Your task to perform on an android device: Search for dell xps on costco.com, select the first entry, and add it to the cart. Image 0: 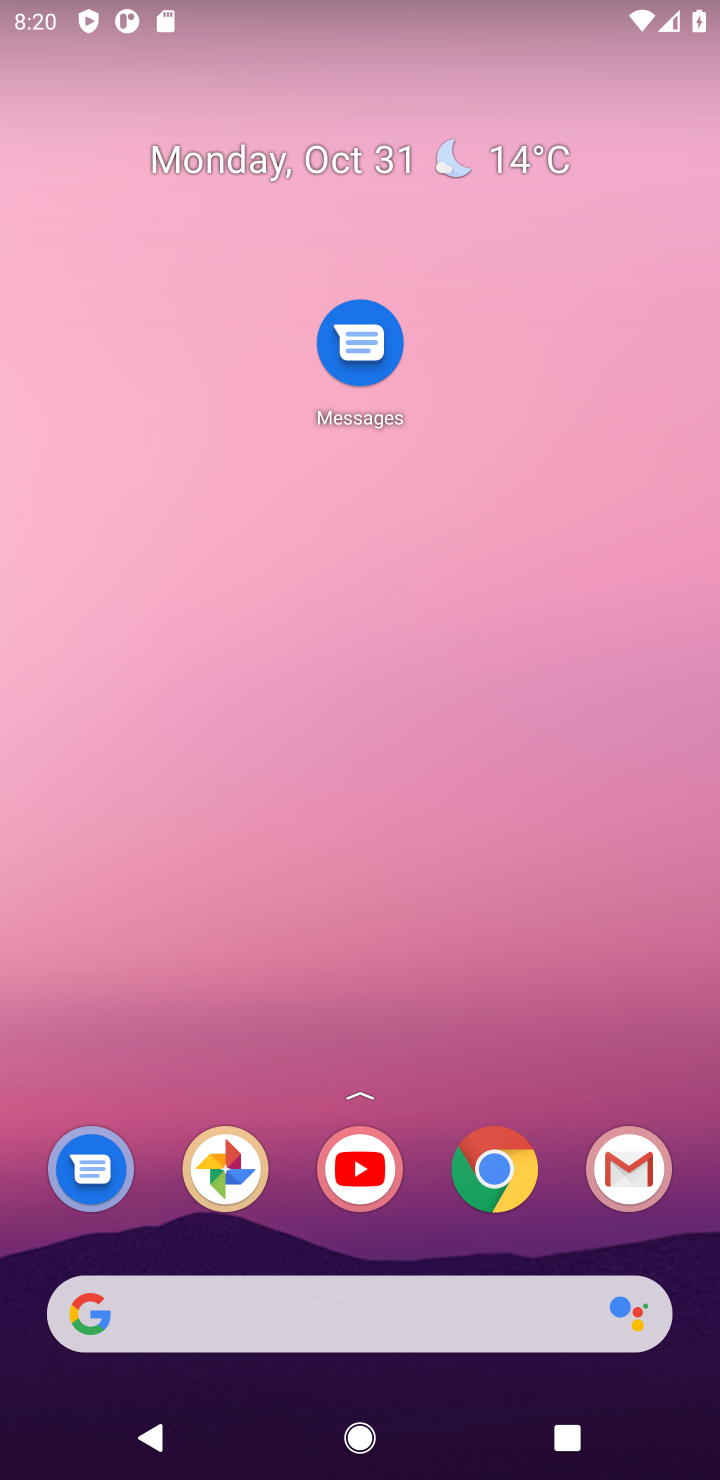
Step 0: drag from (253, 1219) to (249, 280)
Your task to perform on an android device: Search for dell xps on costco.com, select the first entry, and add it to the cart. Image 1: 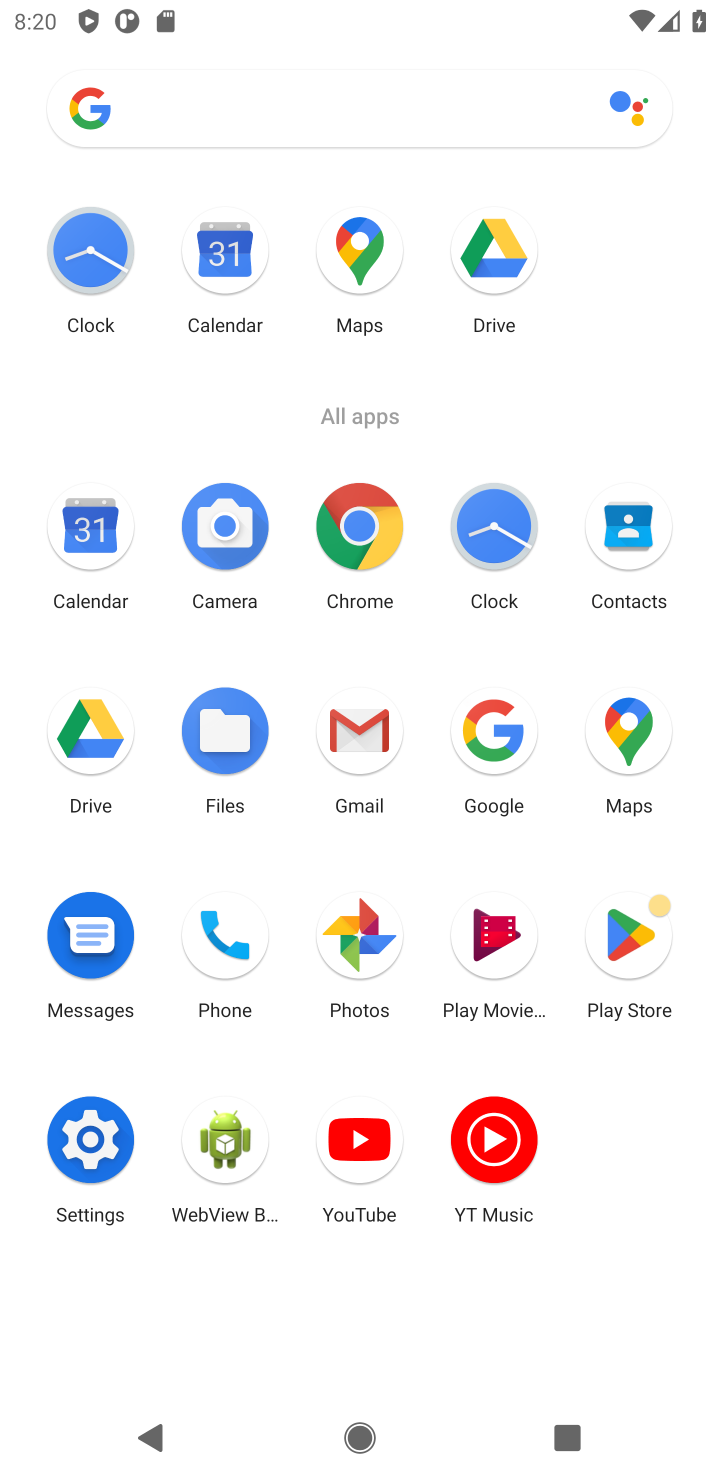
Step 1: click (492, 747)
Your task to perform on an android device: Search for dell xps on costco.com, select the first entry, and add it to the cart. Image 2: 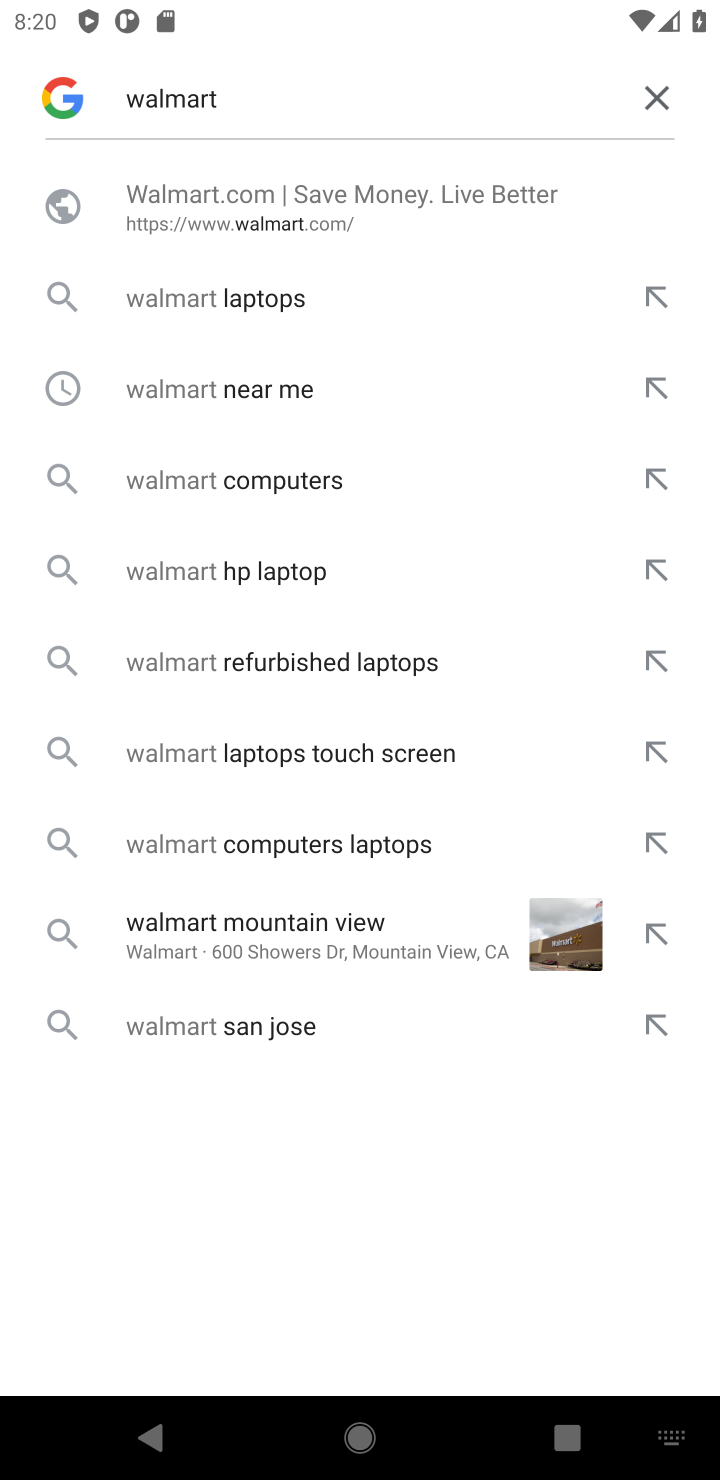
Step 2: click (647, 98)
Your task to perform on an android device: Search for dell xps on costco.com, select the first entry, and add it to the cart. Image 3: 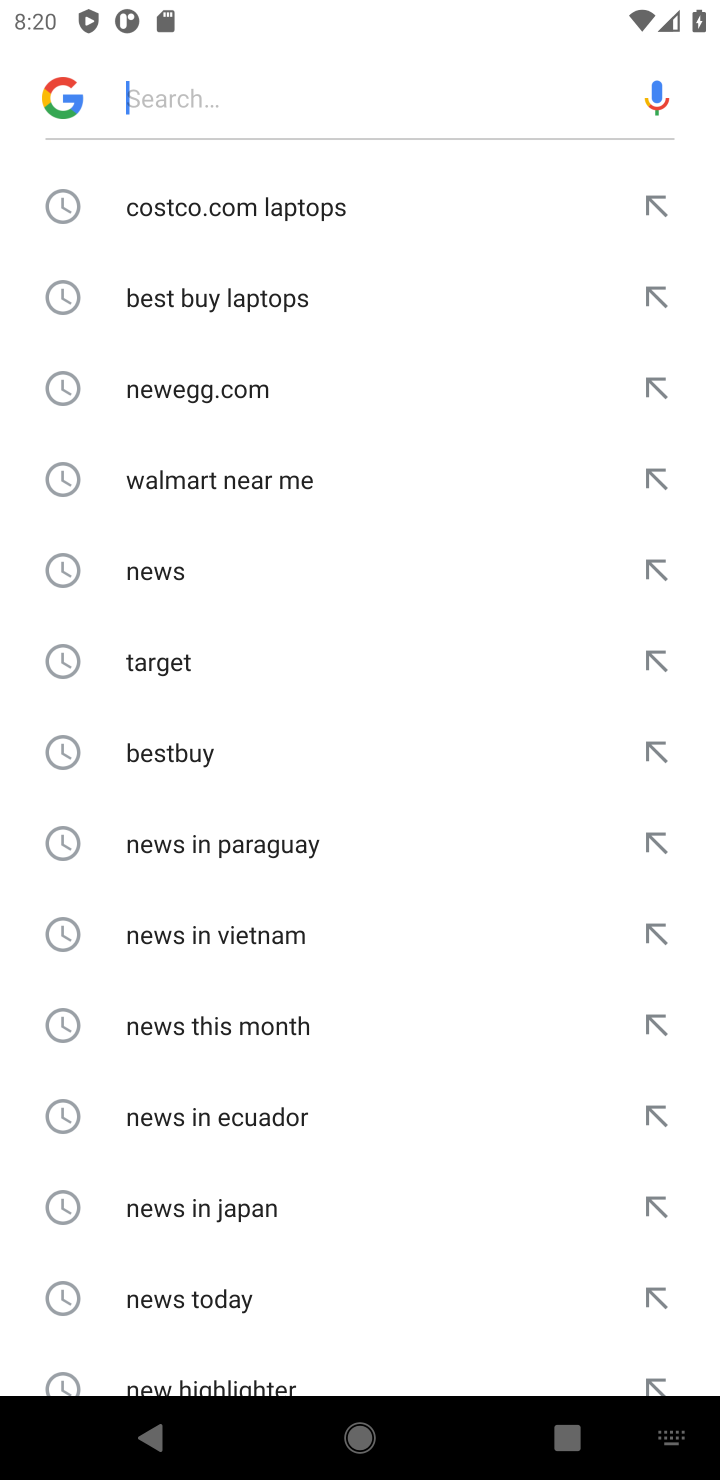
Step 3: click (319, 198)
Your task to perform on an android device: Search for dell xps on costco.com, select the first entry, and add it to the cart. Image 4: 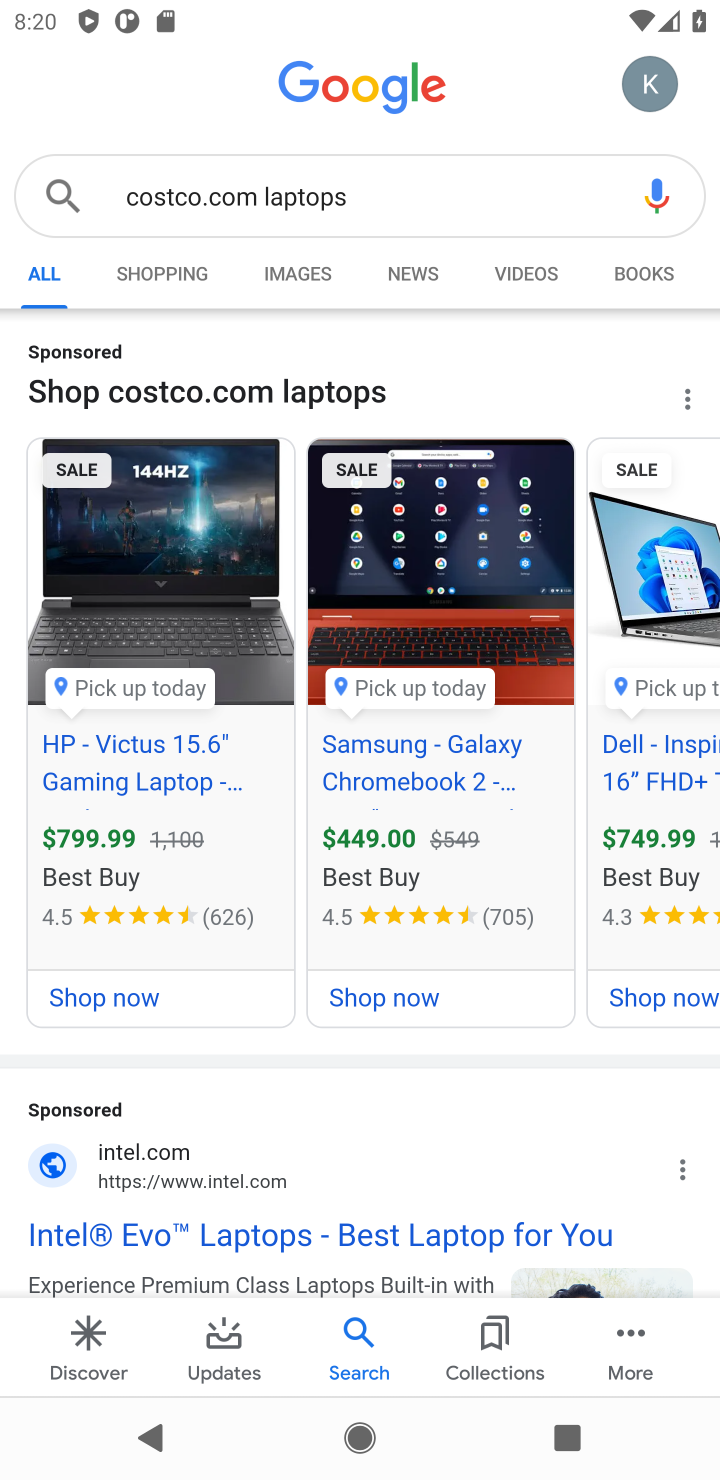
Step 4: drag from (133, 1150) to (285, 450)
Your task to perform on an android device: Search for dell xps on costco.com, select the first entry, and add it to the cart. Image 5: 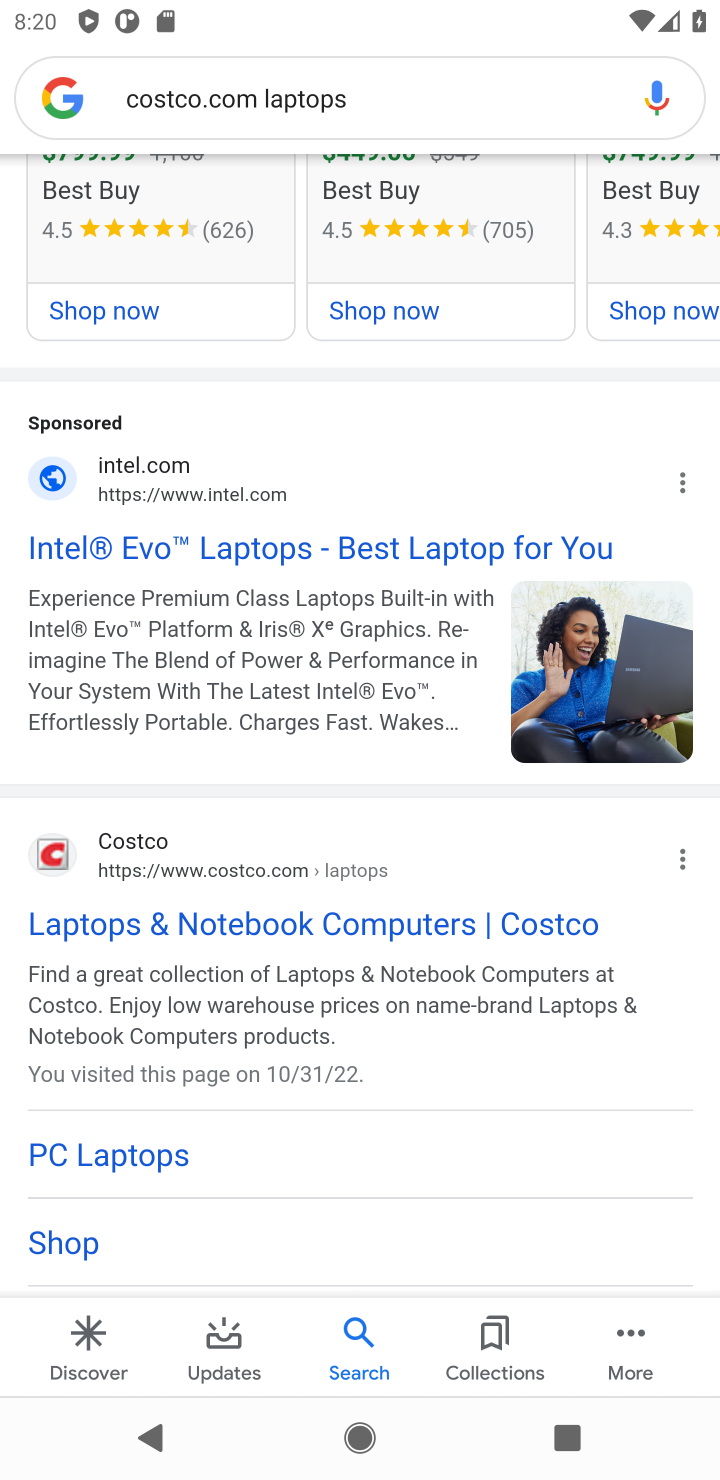
Step 5: click (47, 1021)
Your task to perform on an android device: Search for dell xps on costco.com, select the first entry, and add it to the cart. Image 6: 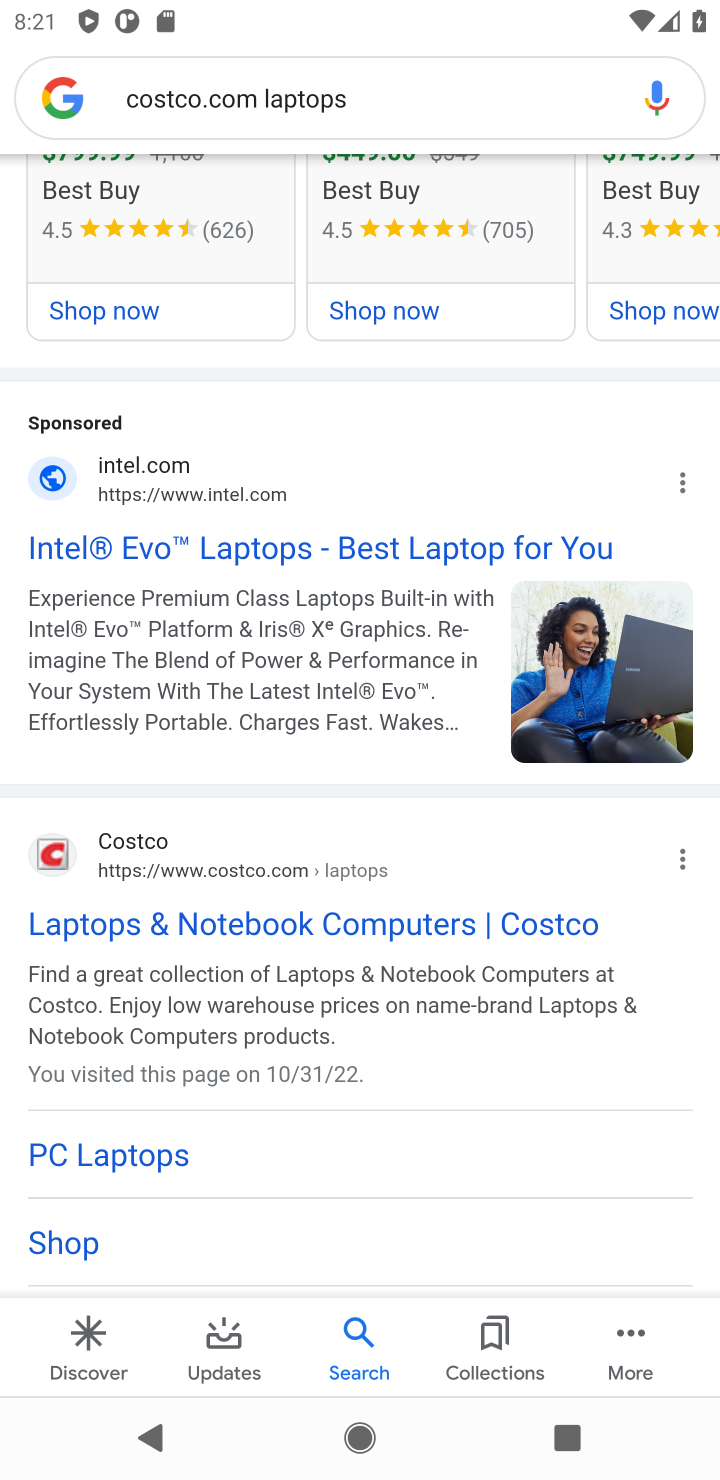
Step 6: click (54, 866)
Your task to perform on an android device: Search for dell xps on costco.com, select the first entry, and add it to the cart. Image 7: 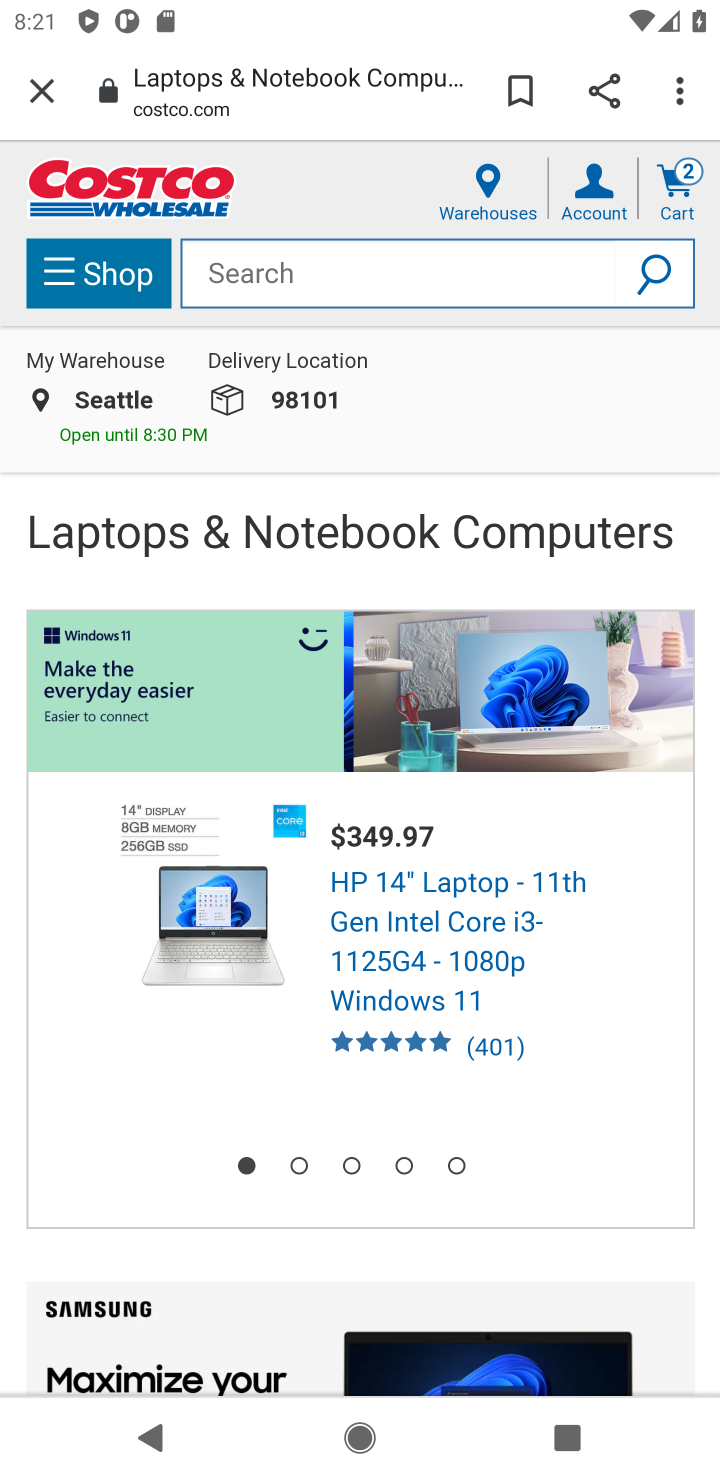
Step 7: click (353, 256)
Your task to perform on an android device: Search for dell xps on costco.com, select the first entry, and add it to the cart. Image 8: 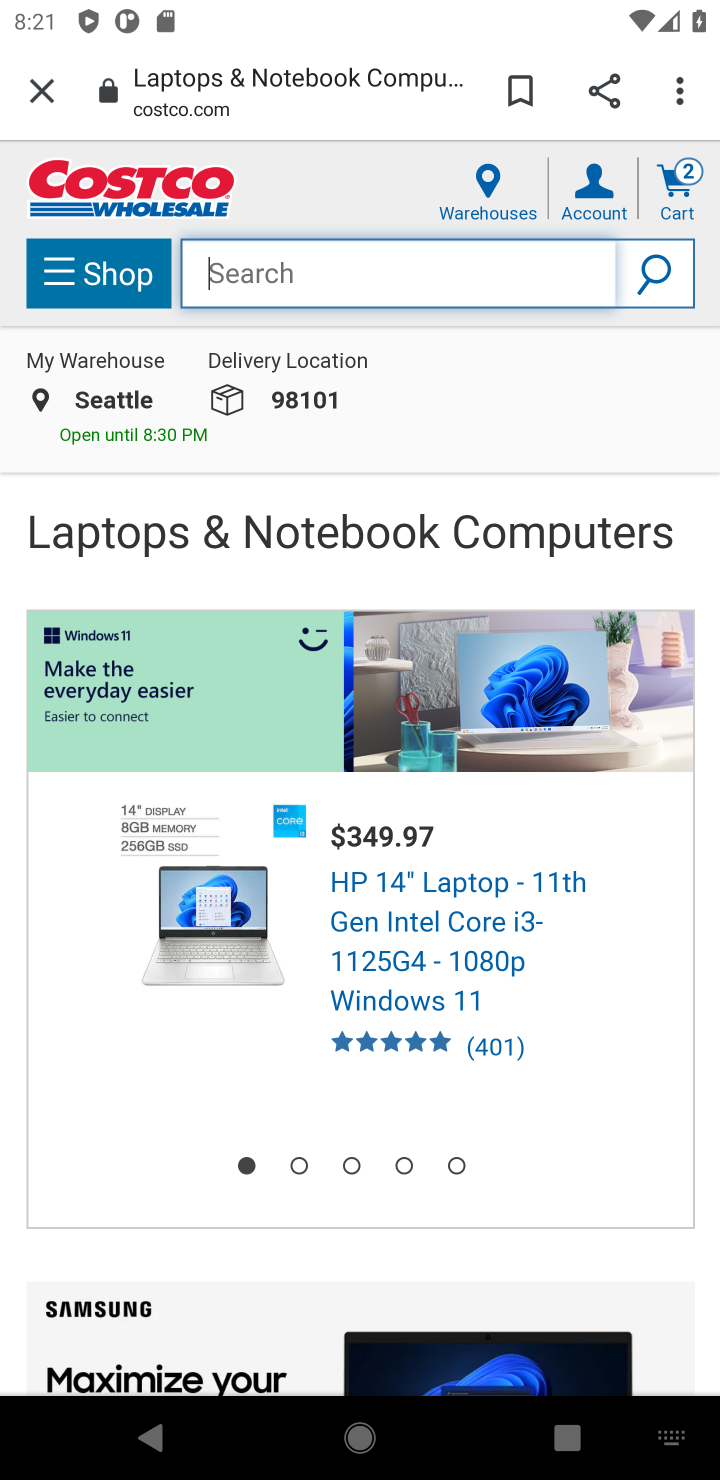
Step 8: type "dell xps "
Your task to perform on an android device: Search for dell xps on costco.com, select the first entry, and add it to the cart. Image 9: 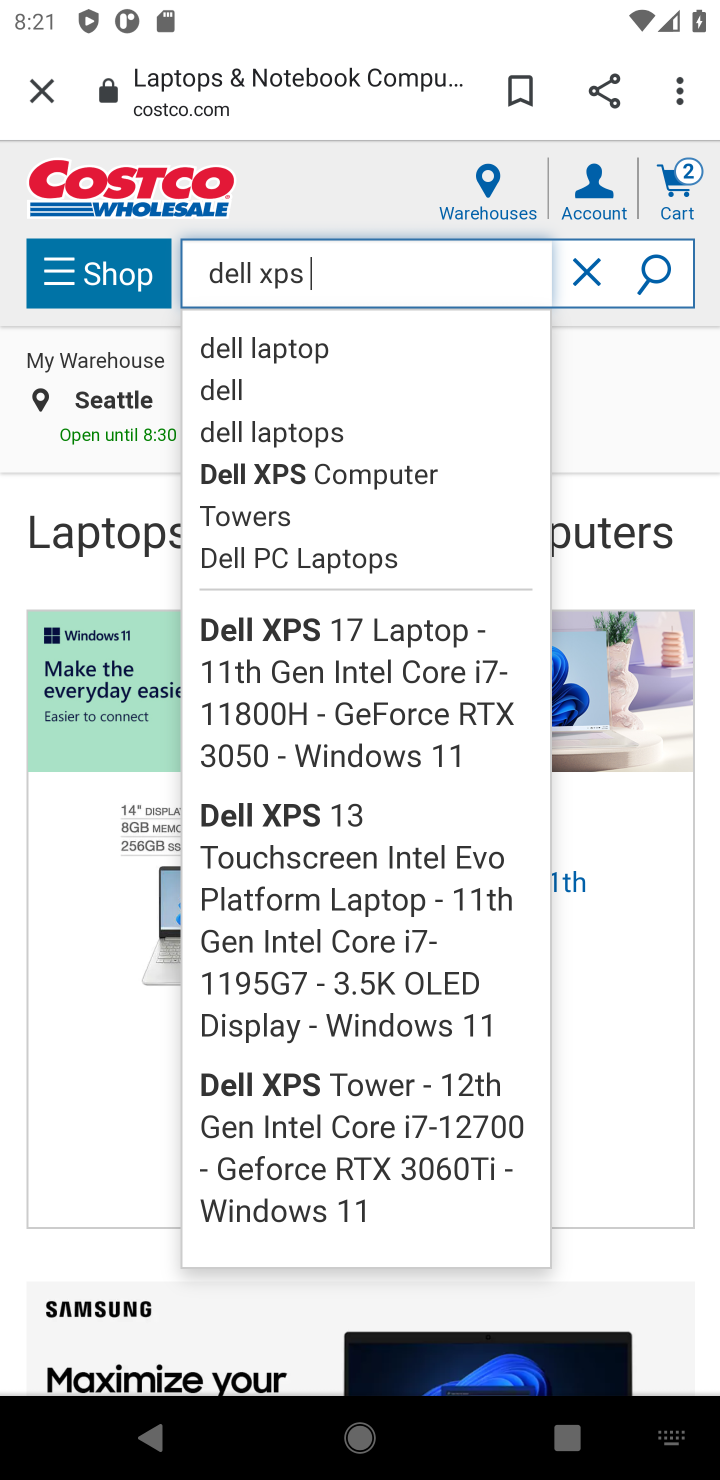
Step 9: click (307, 466)
Your task to perform on an android device: Search for dell xps on costco.com, select the first entry, and add it to the cart. Image 10: 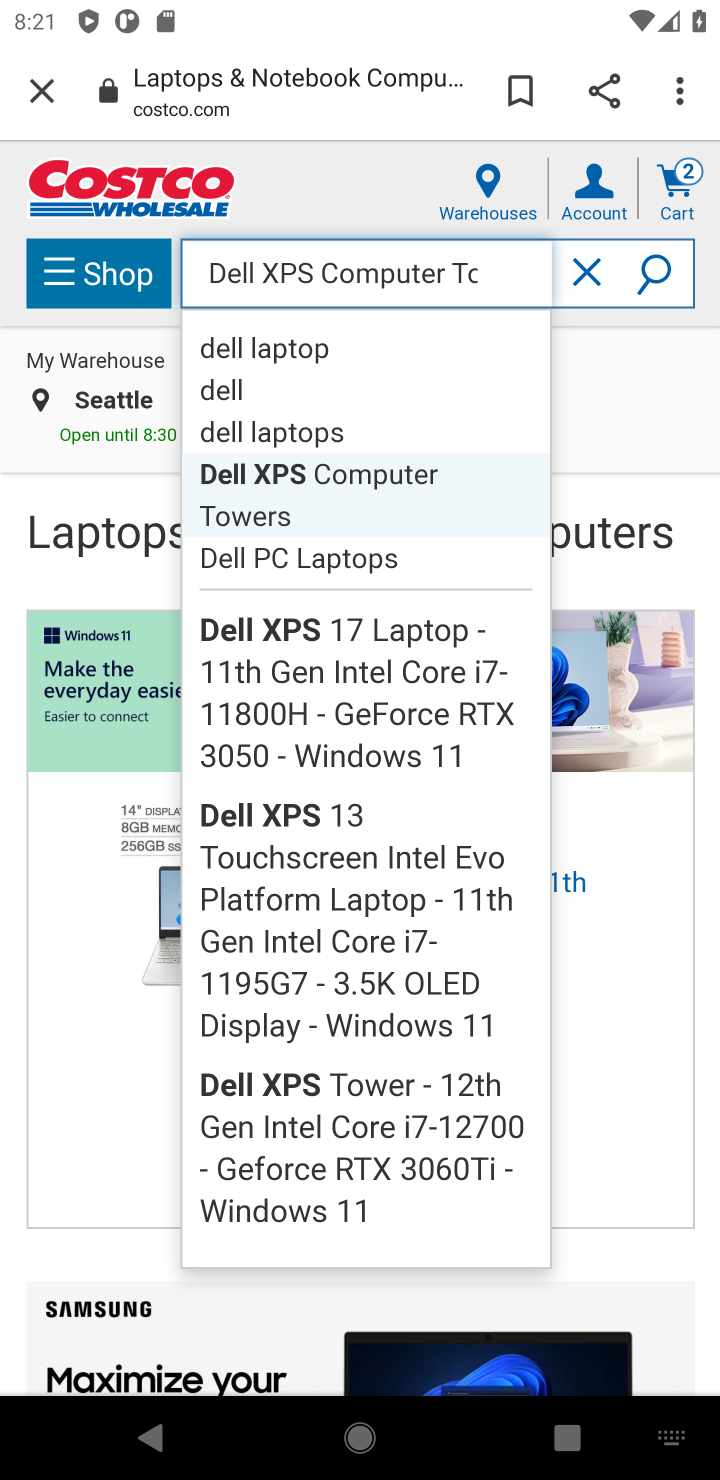
Step 10: click (326, 678)
Your task to perform on an android device: Search for dell xps on costco.com, select the first entry, and add it to the cart. Image 11: 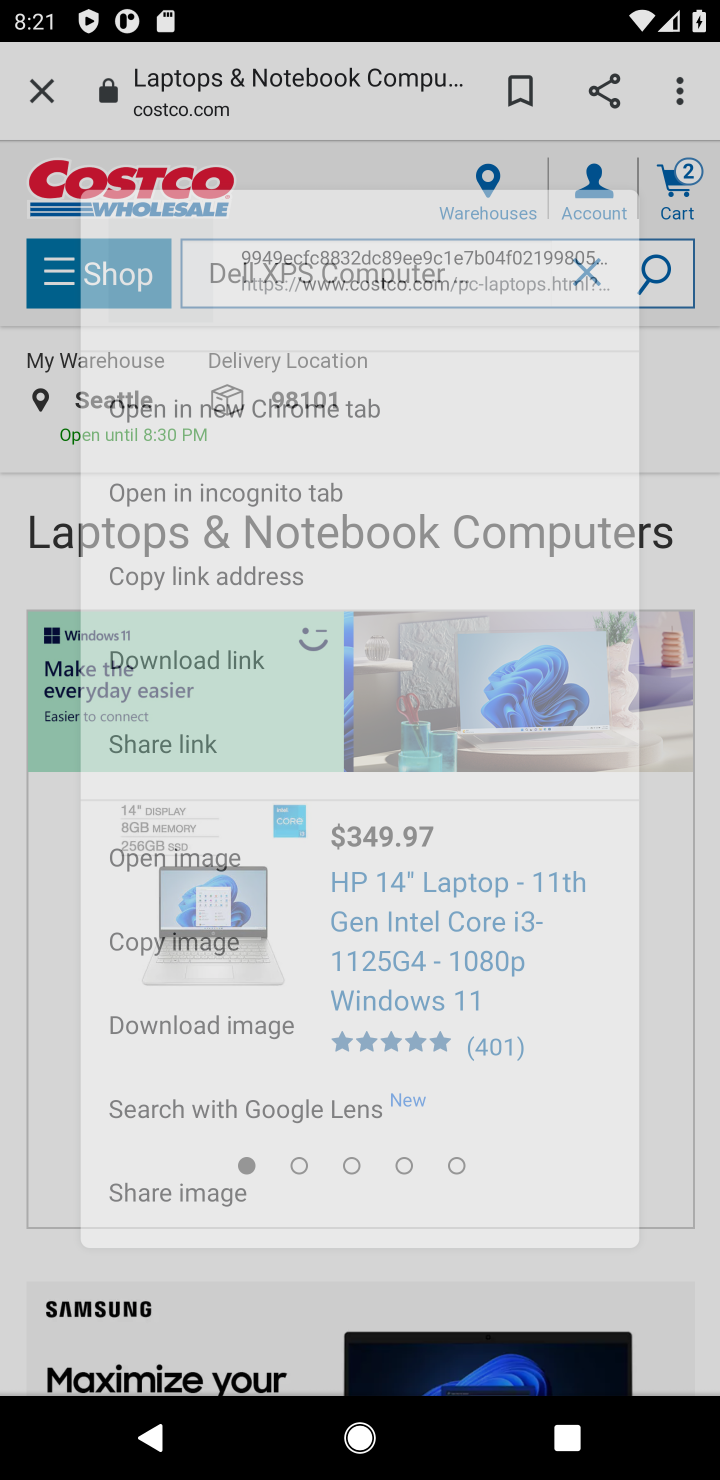
Step 11: click (323, 678)
Your task to perform on an android device: Search for dell xps on costco.com, select the first entry, and add it to the cart. Image 12: 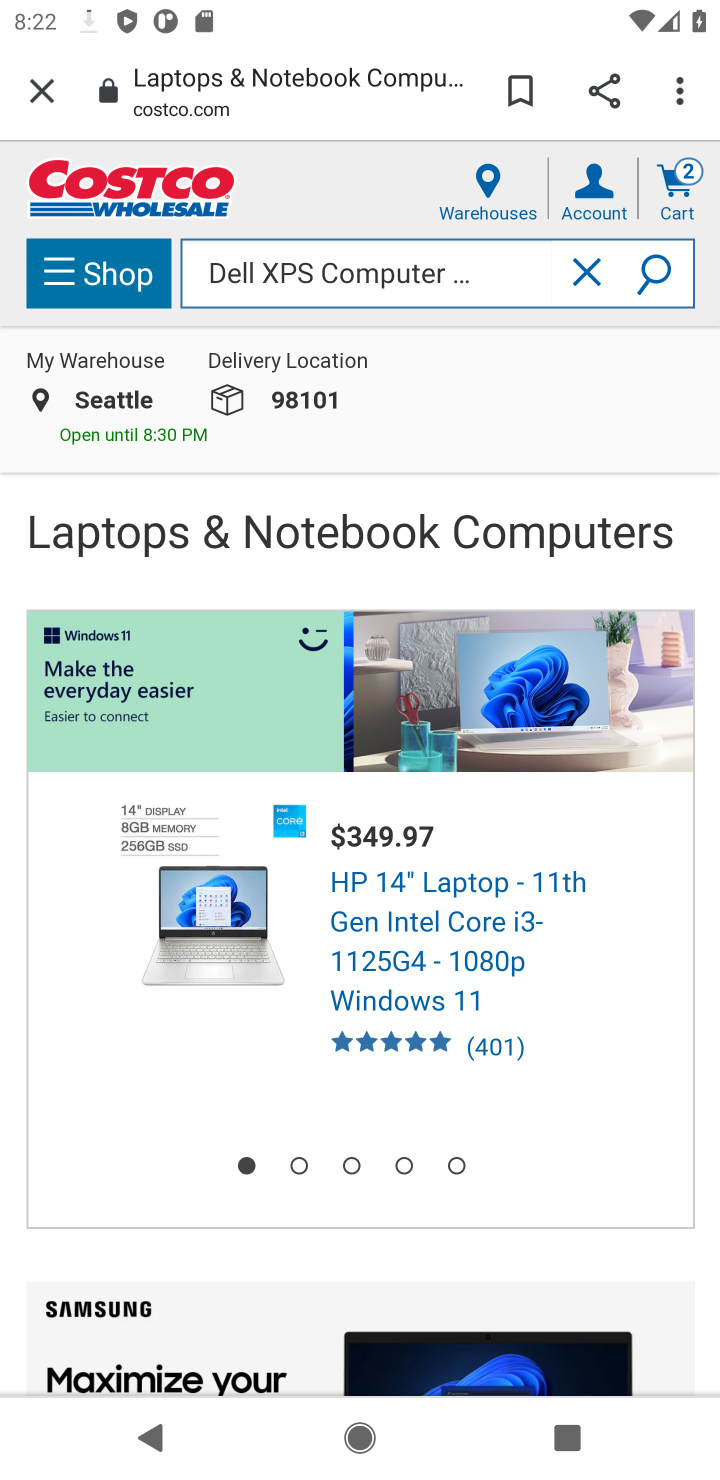
Step 12: click (568, 273)
Your task to perform on an android device: Search for dell xps on costco.com, select the first entry, and add it to the cart. Image 13: 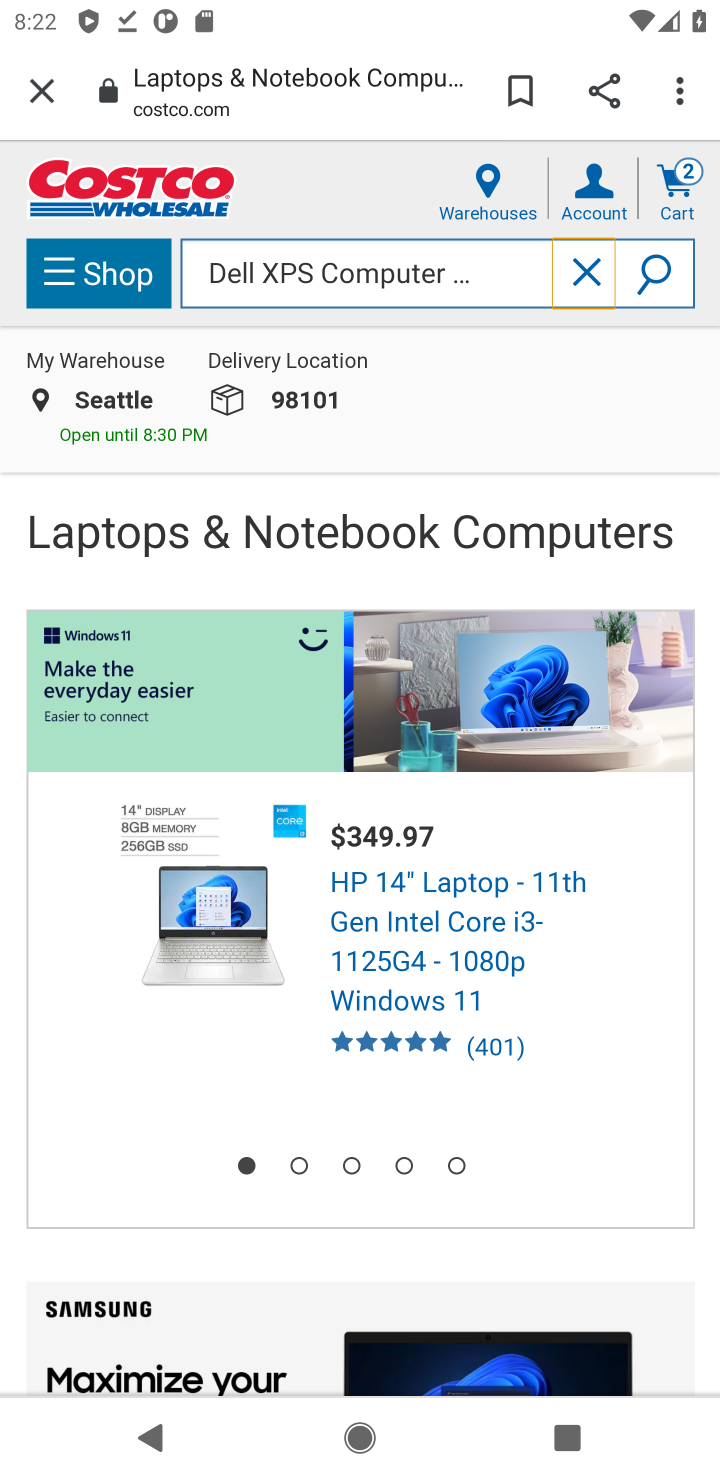
Step 13: click (599, 275)
Your task to perform on an android device: Search for dell xps on costco.com, select the first entry, and add it to the cart. Image 14: 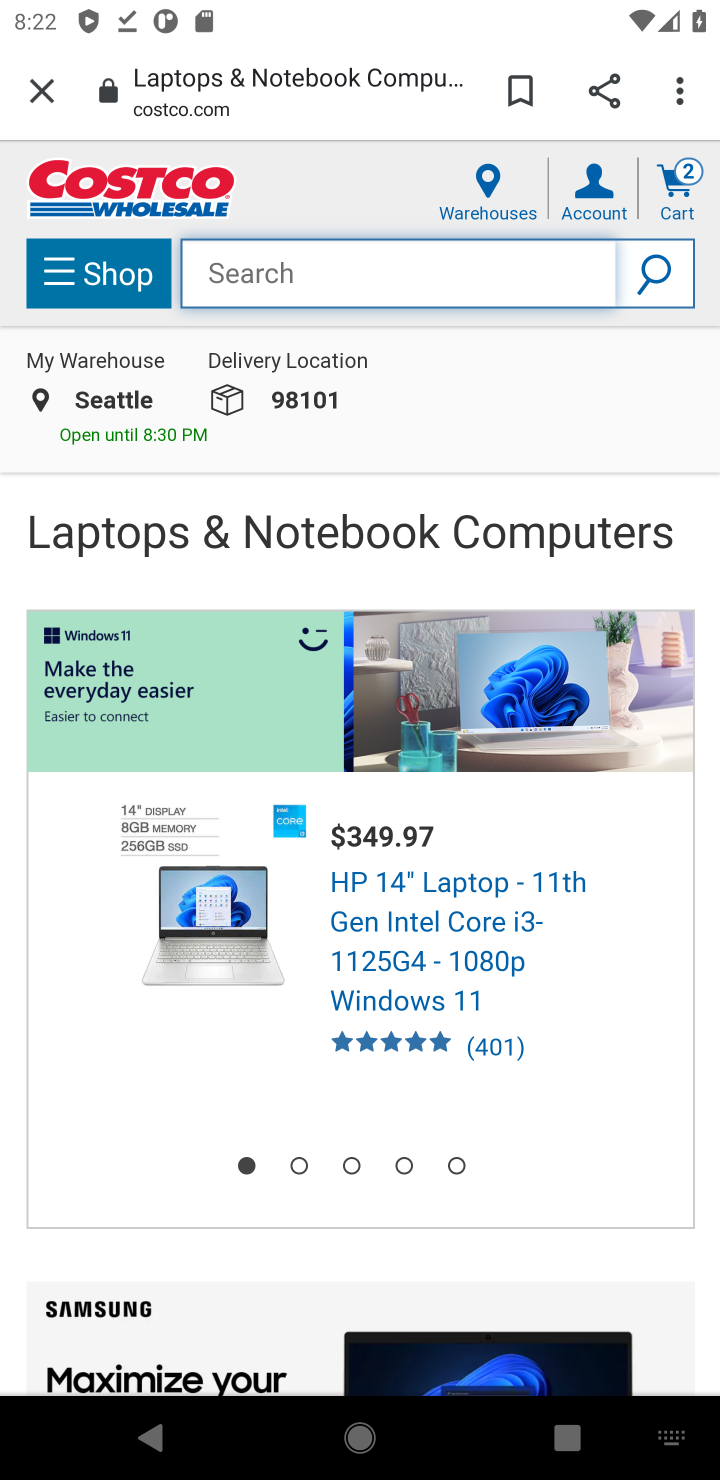
Step 14: click (271, 255)
Your task to perform on an android device: Search for dell xps on costco.com, select the first entry, and add it to the cart. Image 15: 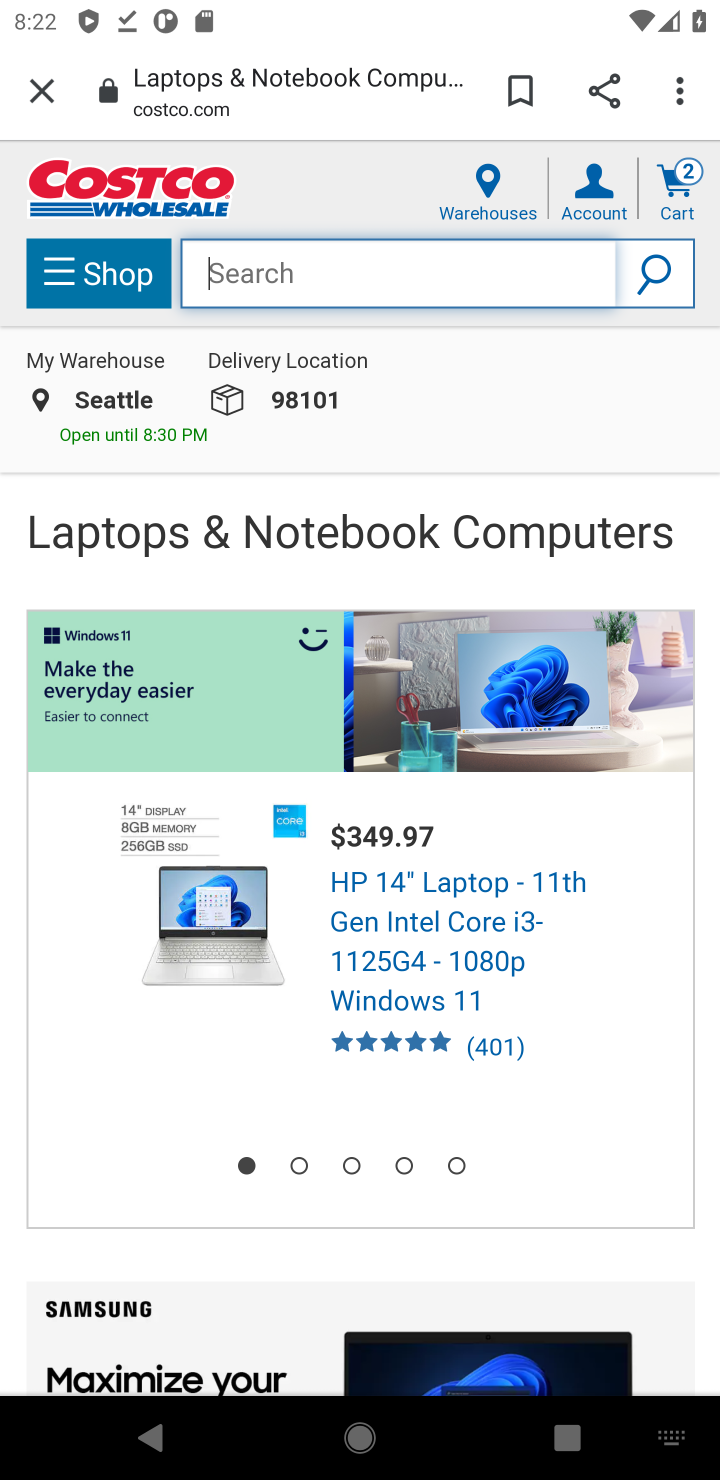
Step 15: type "dell xps "
Your task to perform on an android device: Search for dell xps on costco.com, select the first entry, and add it to the cart. Image 16: 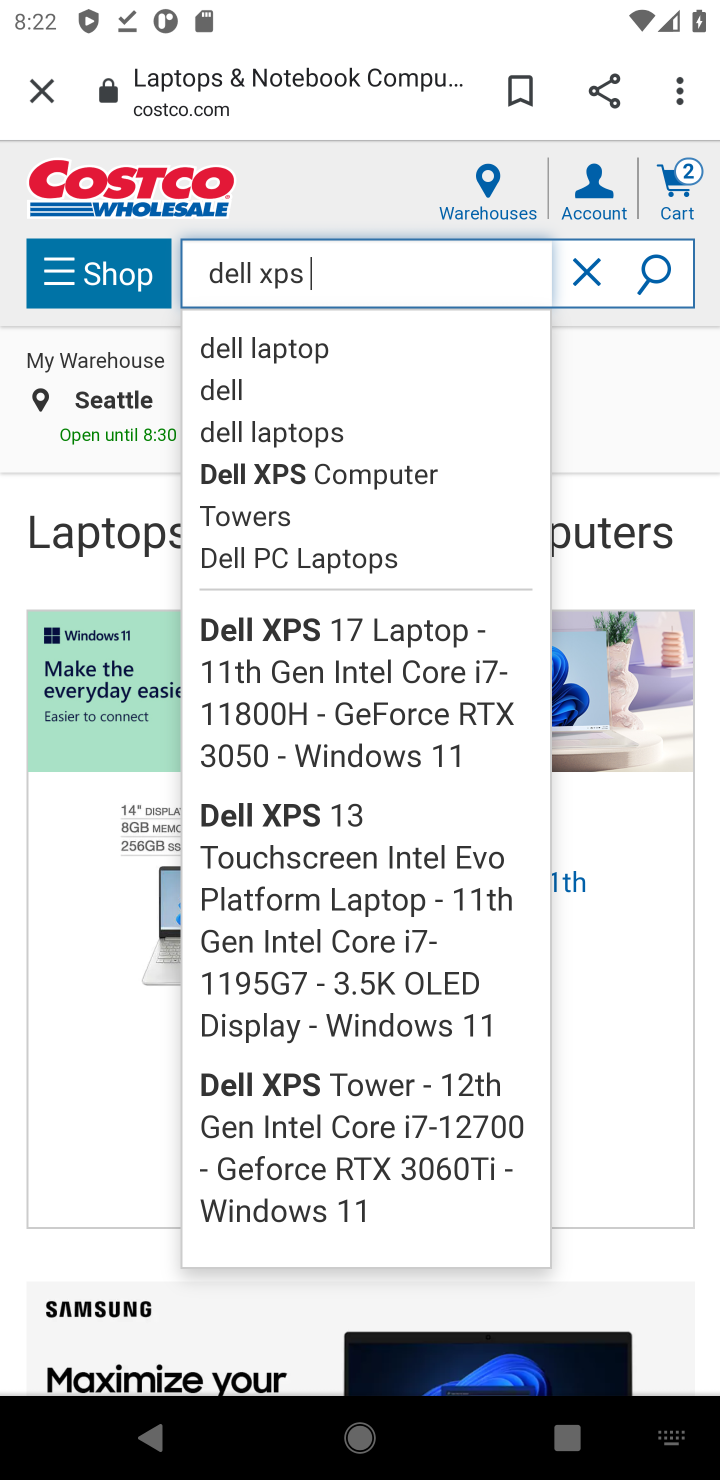
Step 16: click (286, 676)
Your task to perform on an android device: Search for dell xps on costco.com, select the first entry, and add it to the cart. Image 17: 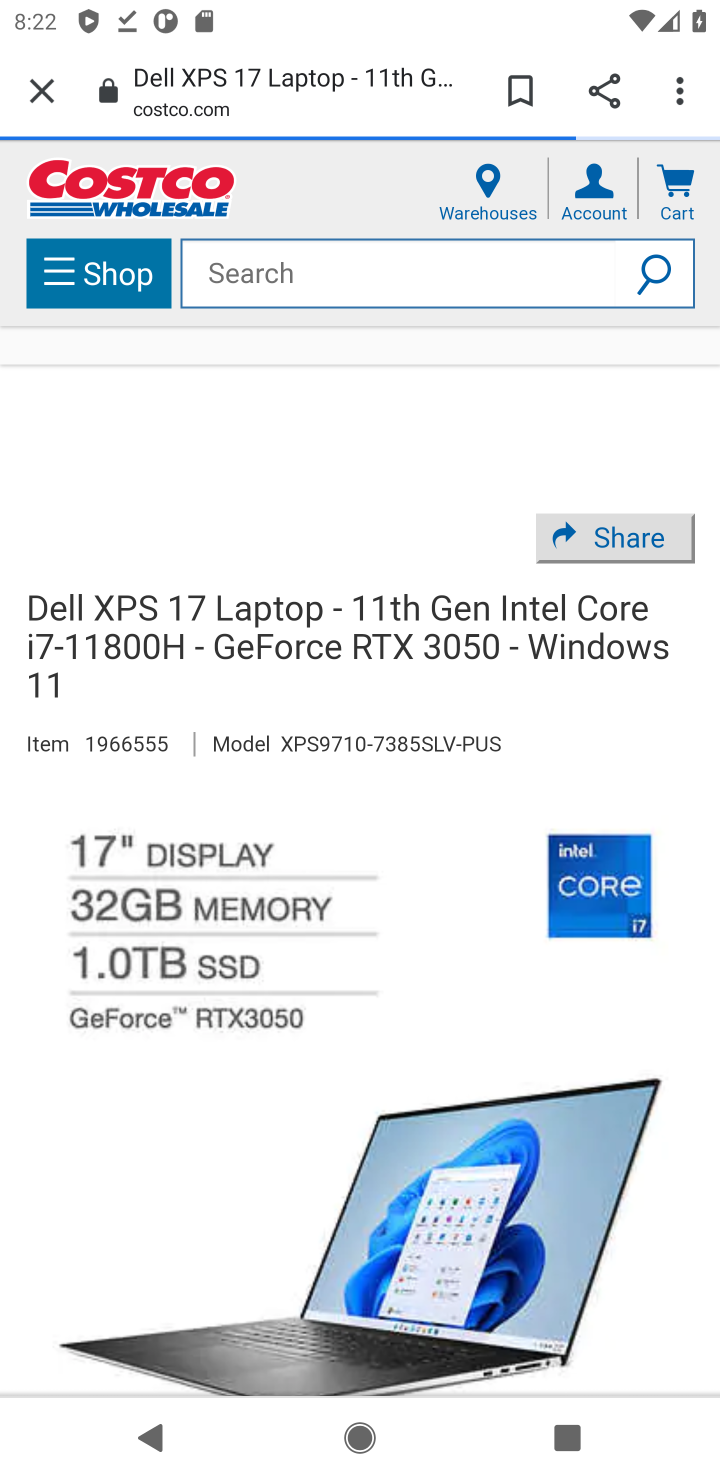
Step 17: drag from (469, 1172) to (511, 324)
Your task to perform on an android device: Search for dell xps on costco.com, select the first entry, and add it to the cart. Image 18: 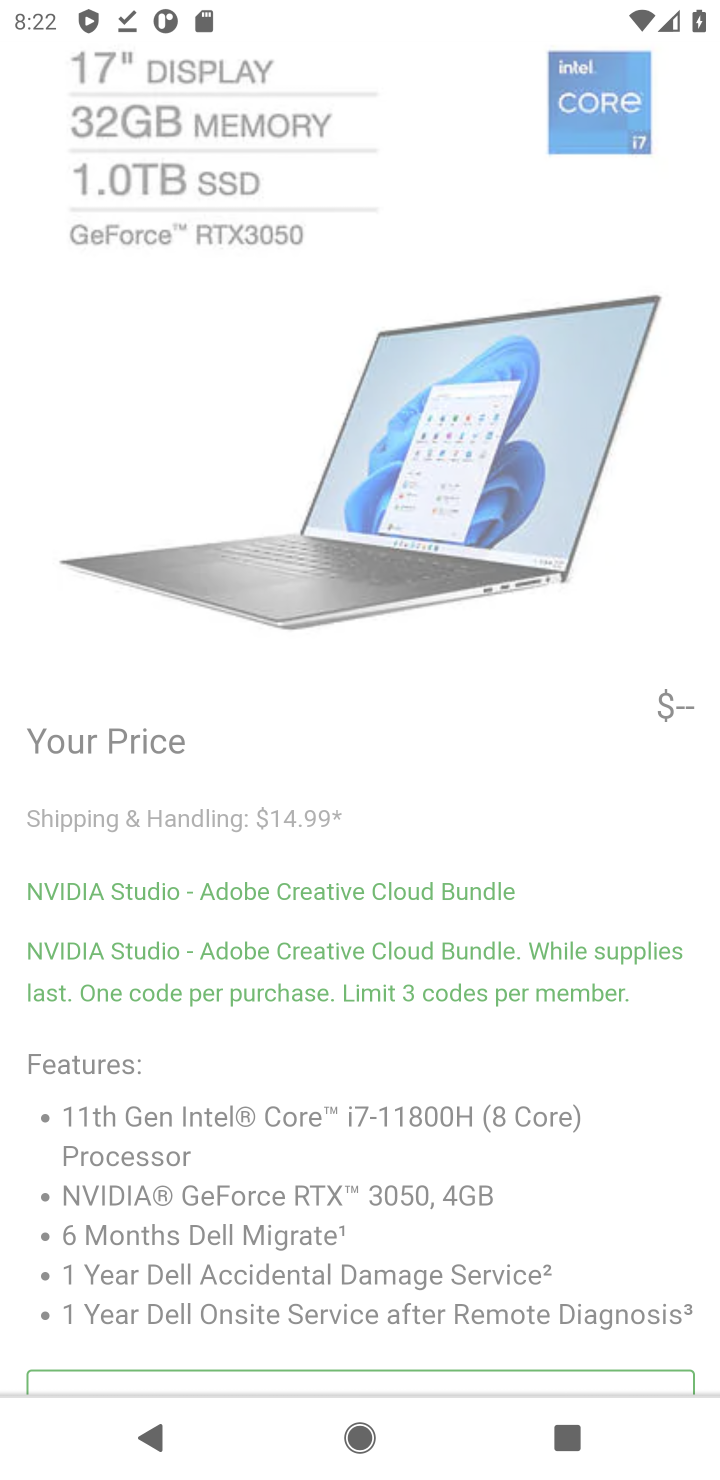
Step 18: drag from (363, 1130) to (602, 201)
Your task to perform on an android device: Search for dell xps on costco.com, select the first entry, and add it to the cart. Image 19: 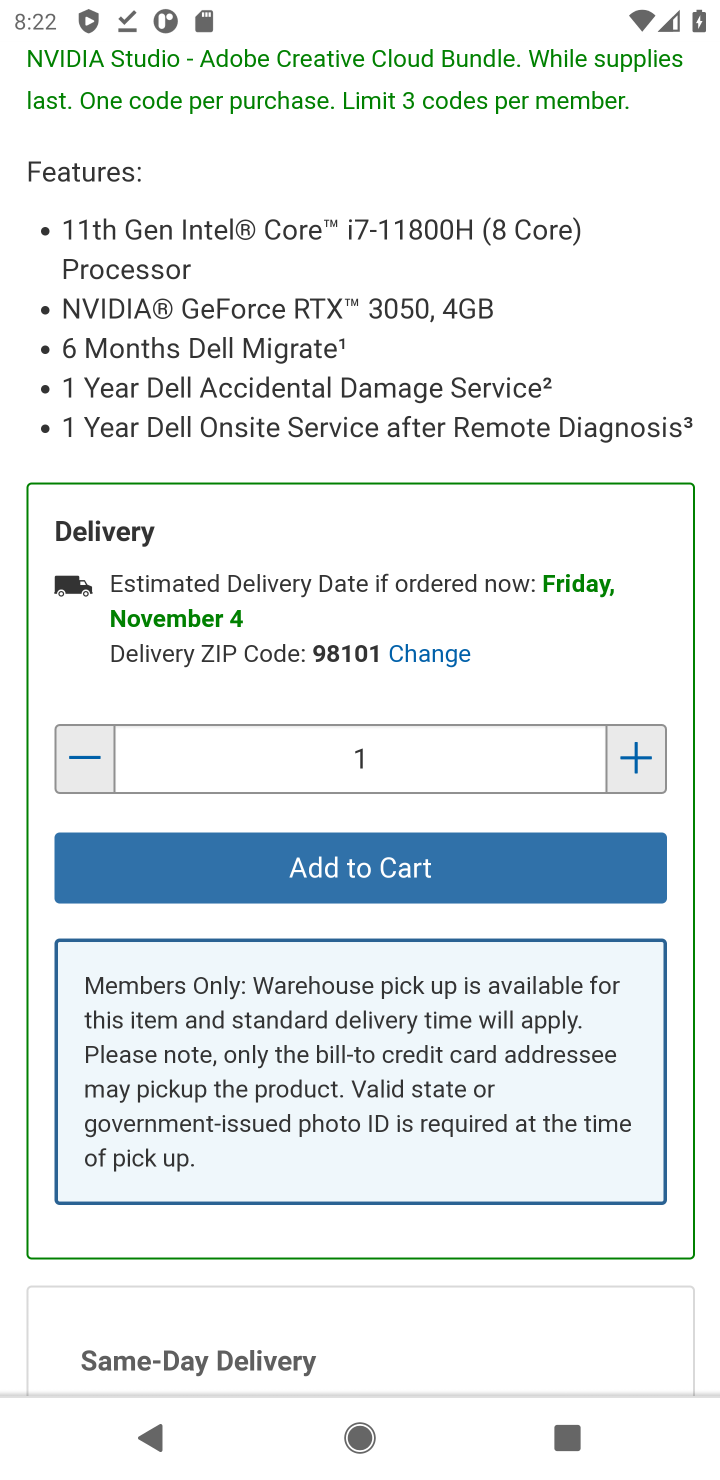
Step 19: click (383, 824)
Your task to perform on an android device: Search for dell xps on costco.com, select the first entry, and add it to the cart. Image 20: 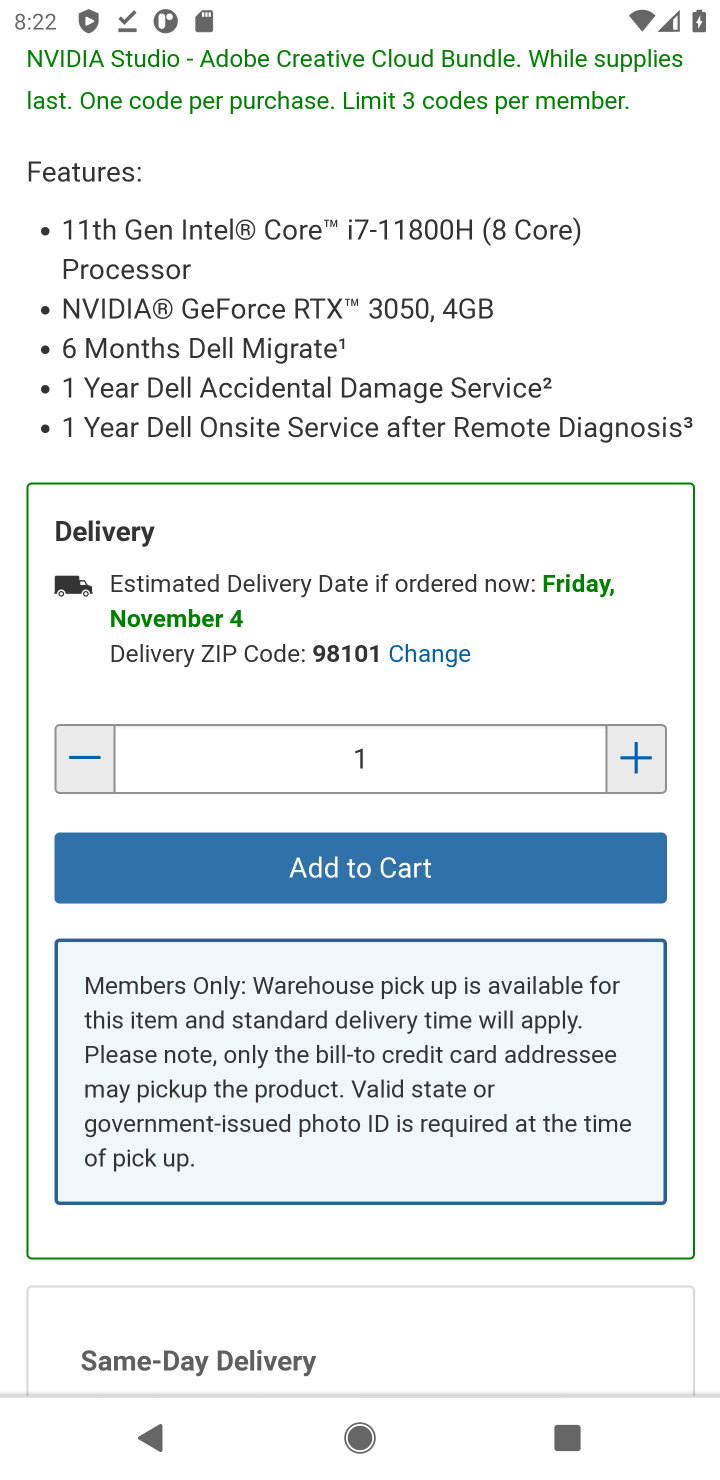
Step 20: click (383, 860)
Your task to perform on an android device: Search for dell xps on costco.com, select the first entry, and add it to the cart. Image 21: 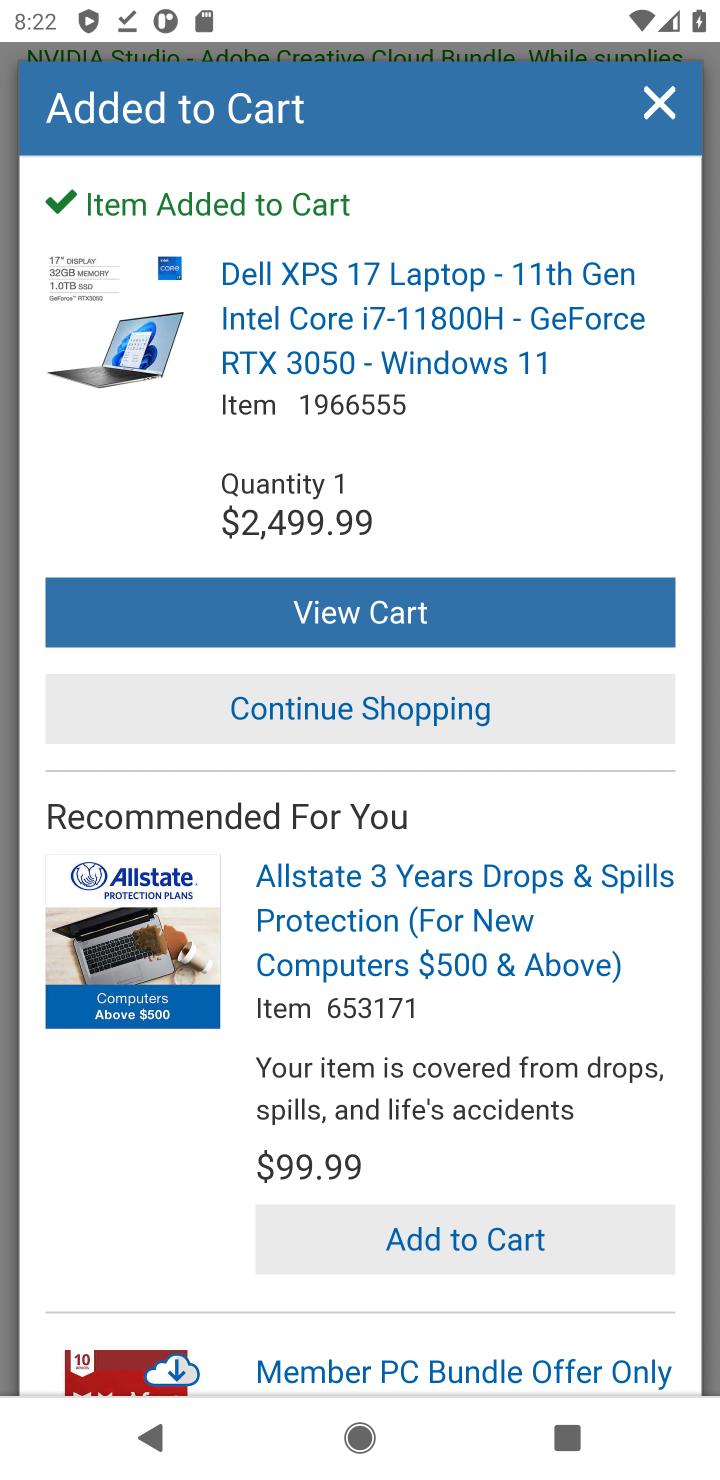
Step 21: task complete